Your task to perform on an android device: create a new album in the google photos Image 0: 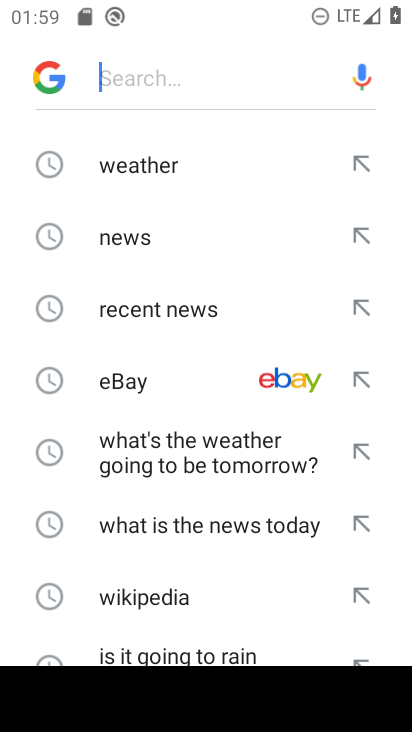
Step 0: press home button
Your task to perform on an android device: create a new album in the google photos Image 1: 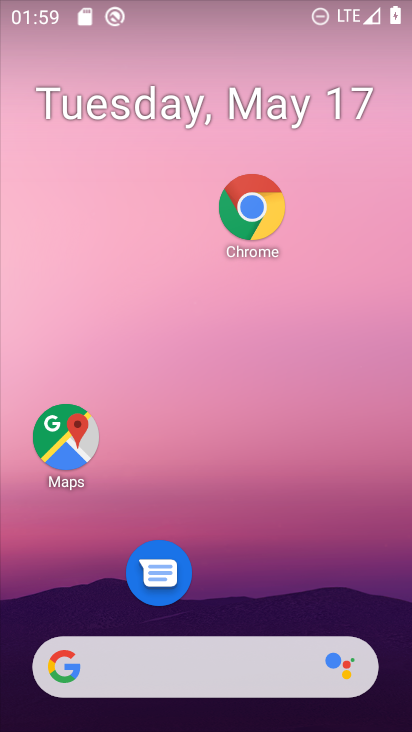
Step 1: drag from (298, 670) to (267, 53)
Your task to perform on an android device: create a new album in the google photos Image 2: 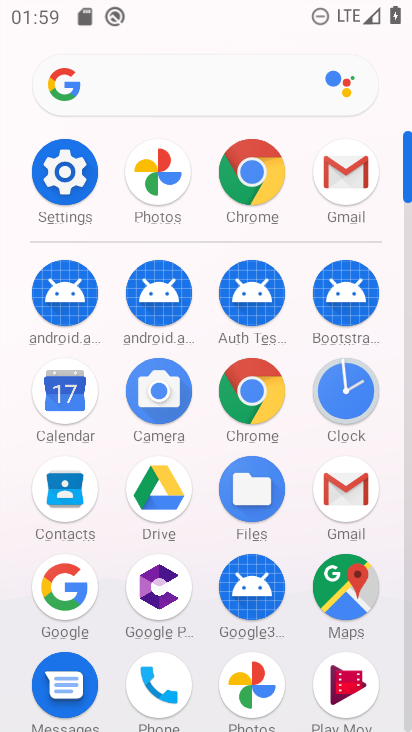
Step 2: click (231, 682)
Your task to perform on an android device: create a new album in the google photos Image 3: 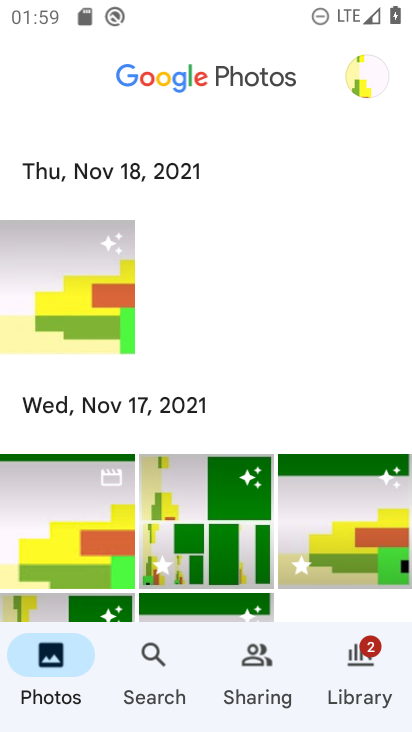
Step 3: click (353, 663)
Your task to perform on an android device: create a new album in the google photos Image 4: 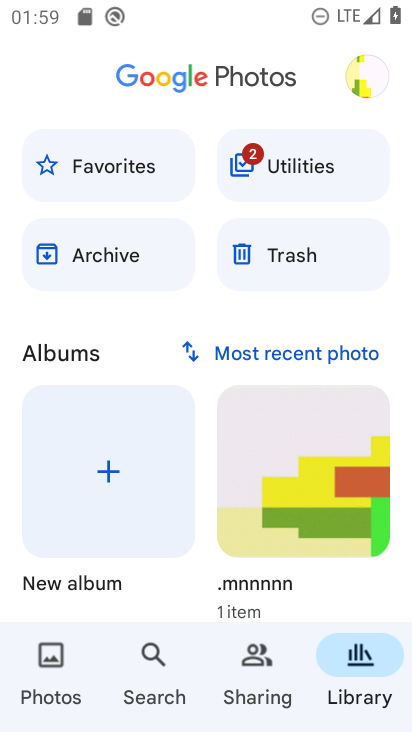
Step 4: click (106, 469)
Your task to perform on an android device: create a new album in the google photos Image 5: 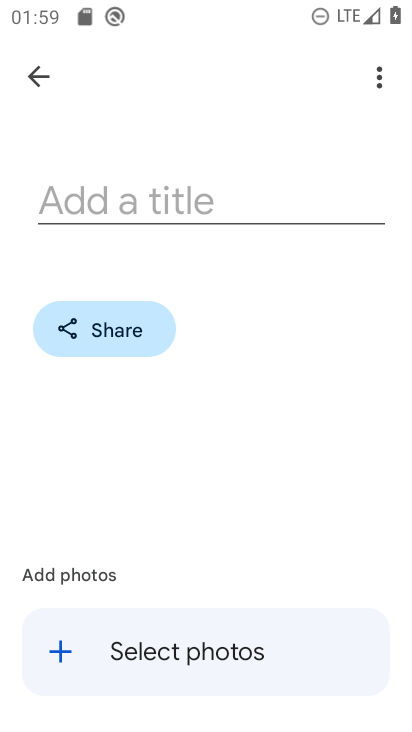
Step 5: click (202, 205)
Your task to perform on an android device: create a new album in the google photos Image 6: 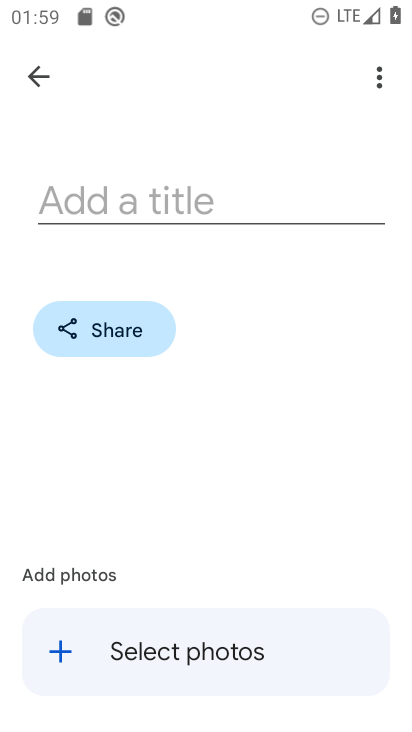
Step 6: click (202, 205)
Your task to perform on an android device: create a new album in the google photos Image 7: 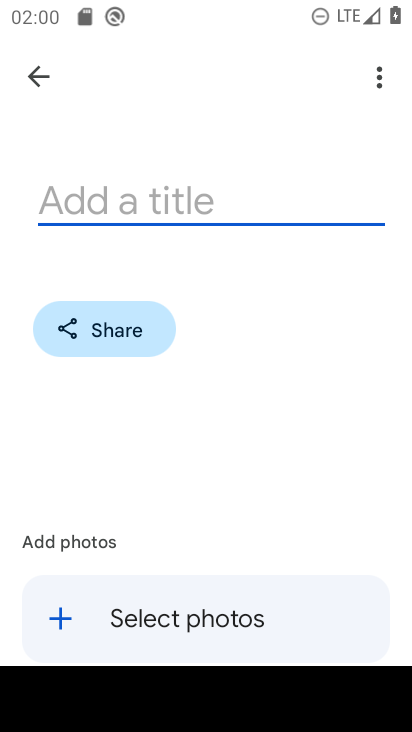
Step 7: type "fcdjfcjff"
Your task to perform on an android device: create a new album in the google photos Image 8: 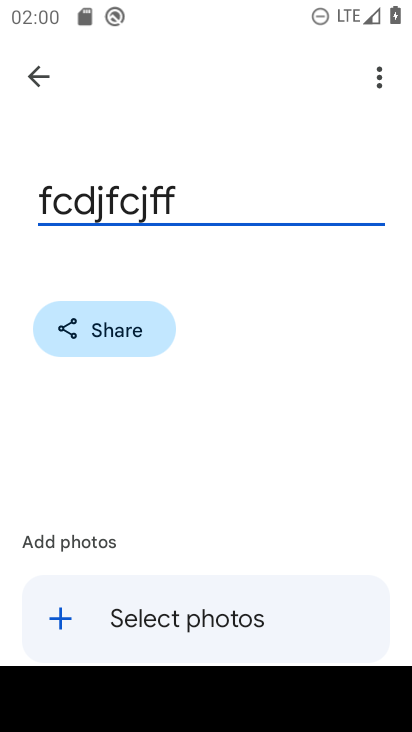
Step 8: click (58, 617)
Your task to perform on an android device: create a new album in the google photos Image 9: 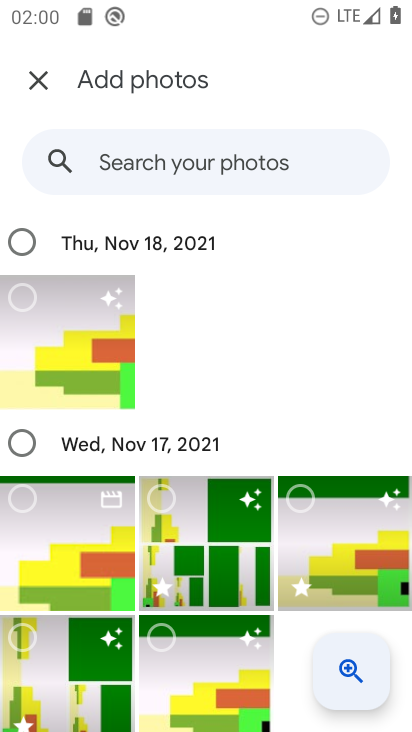
Step 9: click (308, 520)
Your task to perform on an android device: create a new album in the google photos Image 10: 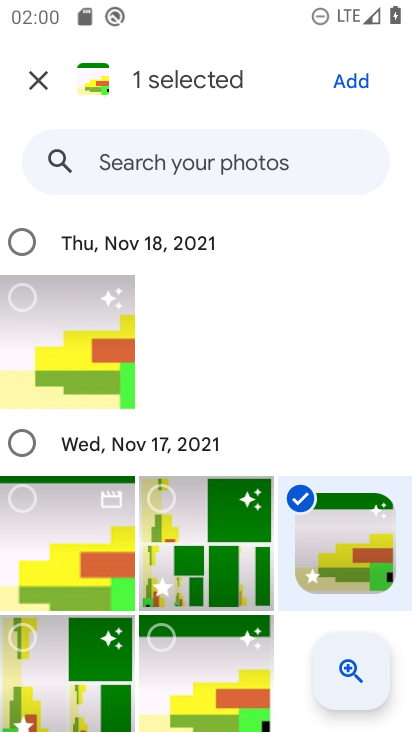
Step 10: click (340, 79)
Your task to perform on an android device: create a new album in the google photos Image 11: 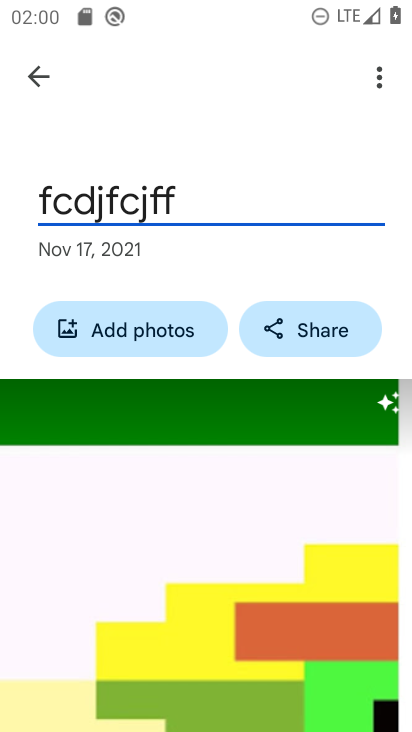
Step 11: task complete